Your task to perform on an android device: Open internet settings Image 0: 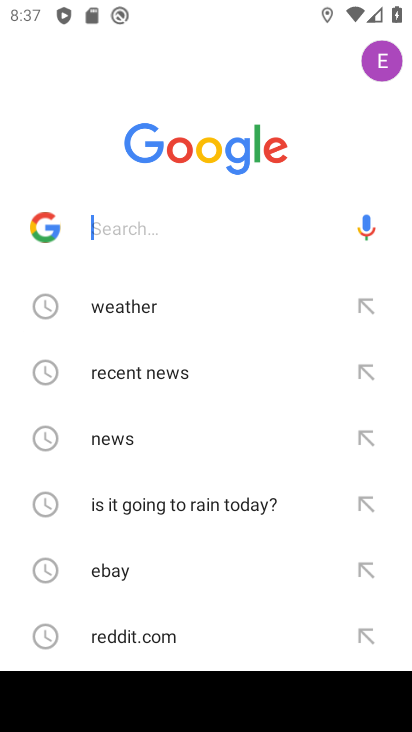
Step 0: press home button
Your task to perform on an android device: Open internet settings Image 1: 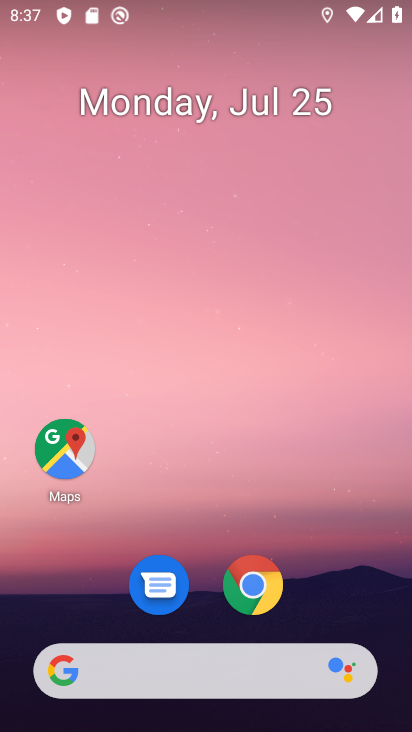
Step 1: drag from (221, 644) to (366, 136)
Your task to perform on an android device: Open internet settings Image 2: 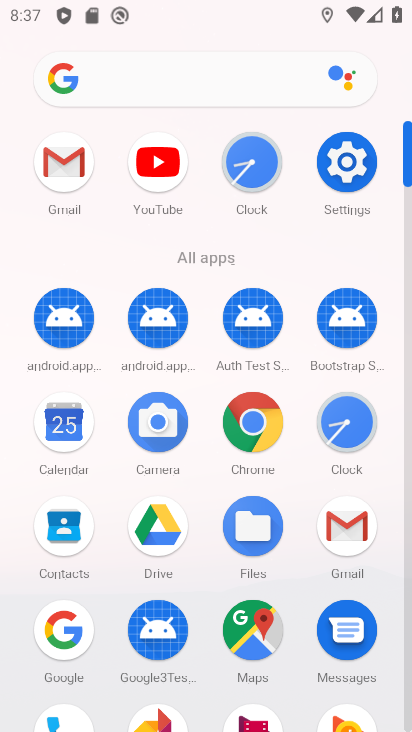
Step 2: click (356, 172)
Your task to perform on an android device: Open internet settings Image 3: 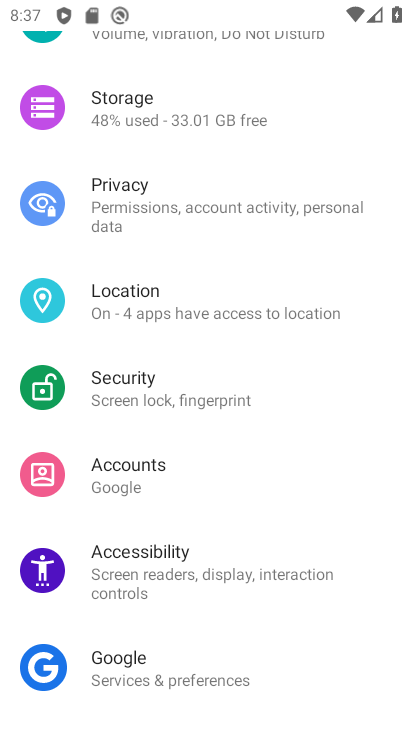
Step 3: drag from (329, 111) to (254, 605)
Your task to perform on an android device: Open internet settings Image 4: 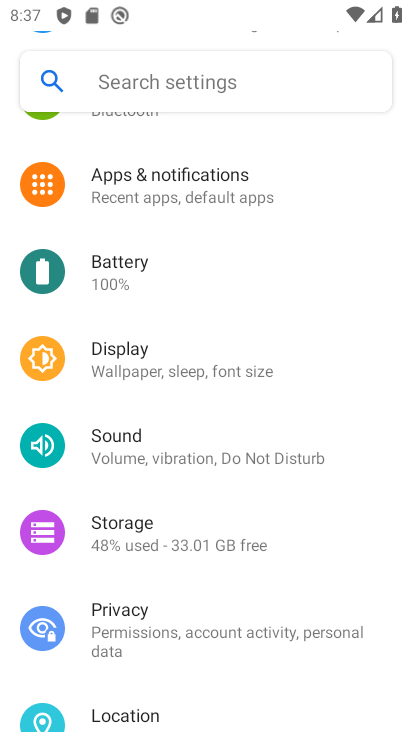
Step 4: drag from (280, 261) to (251, 603)
Your task to perform on an android device: Open internet settings Image 5: 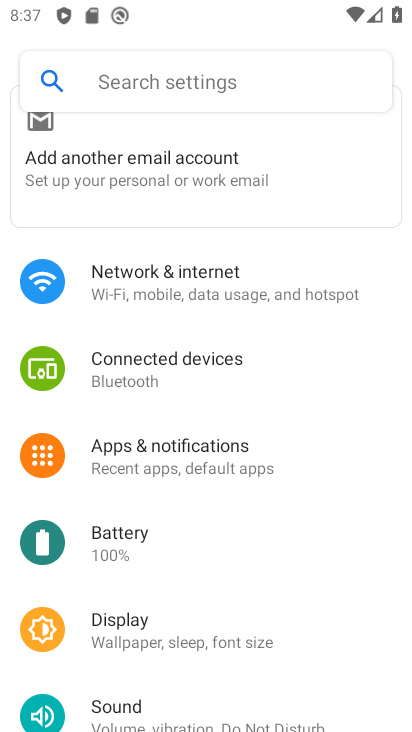
Step 5: click (180, 284)
Your task to perform on an android device: Open internet settings Image 6: 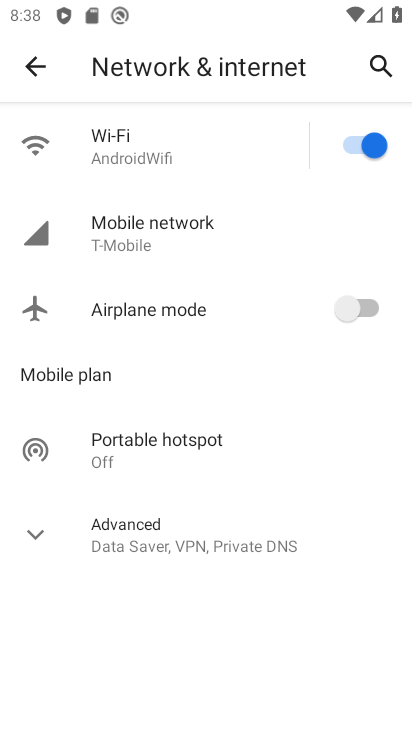
Step 6: task complete